Your task to perform on an android device: Open network settings Image 0: 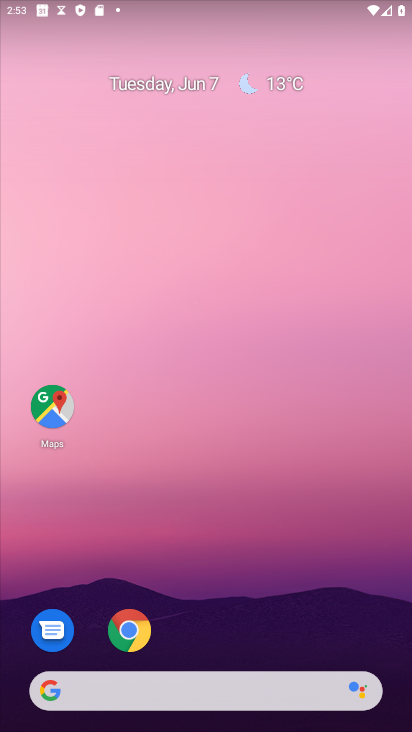
Step 0: drag from (178, 682) to (287, 27)
Your task to perform on an android device: Open network settings Image 1: 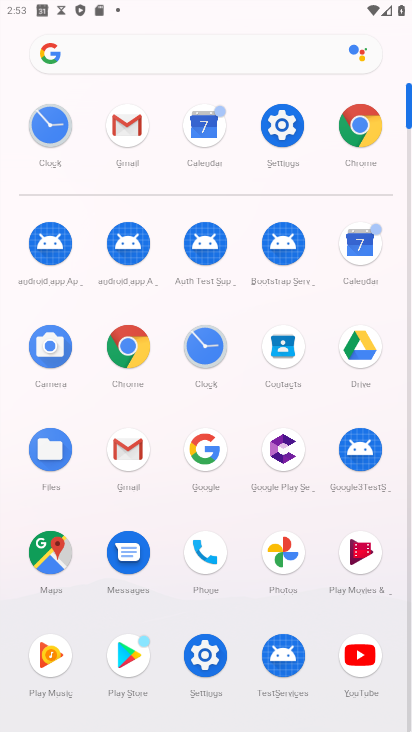
Step 1: click (271, 131)
Your task to perform on an android device: Open network settings Image 2: 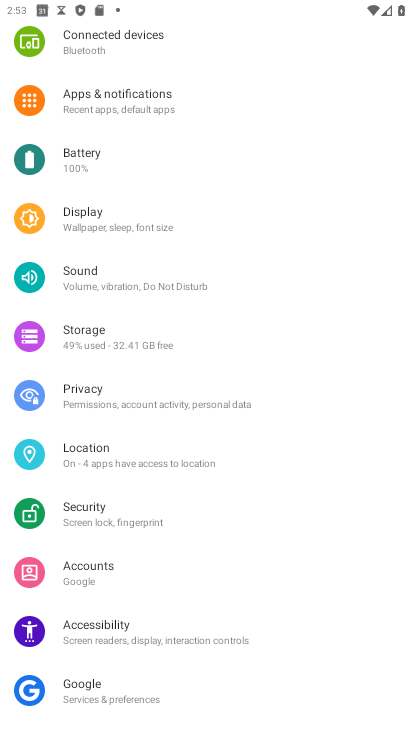
Step 2: drag from (179, 103) to (66, 719)
Your task to perform on an android device: Open network settings Image 3: 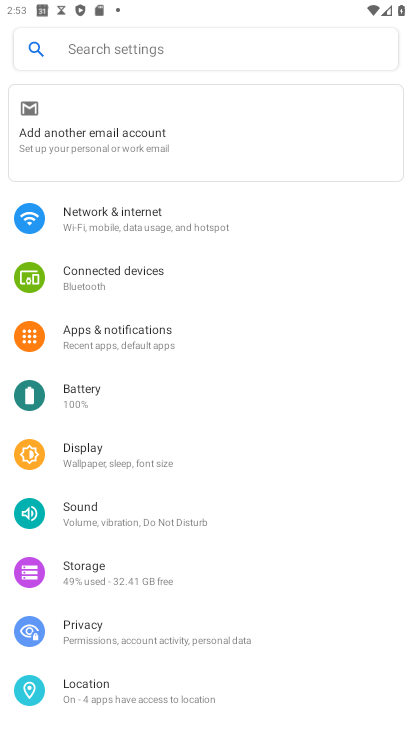
Step 3: click (106, 211)
Your task to perform on an android device: Open network settings Image 4: 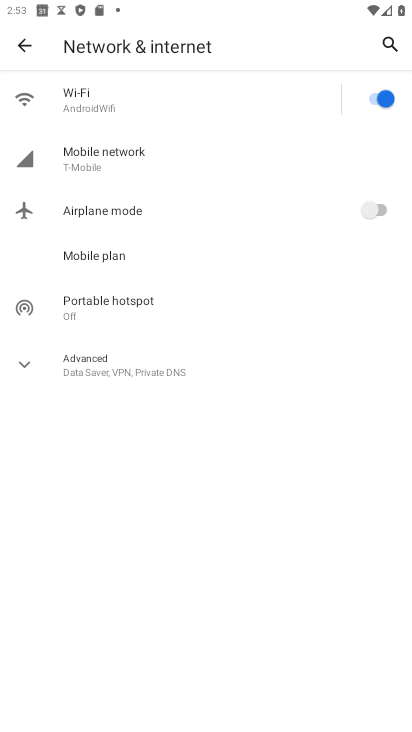
Step 4: task complete